Your task to perform on an android device: turn on the 24-hour format for clock Image 0: 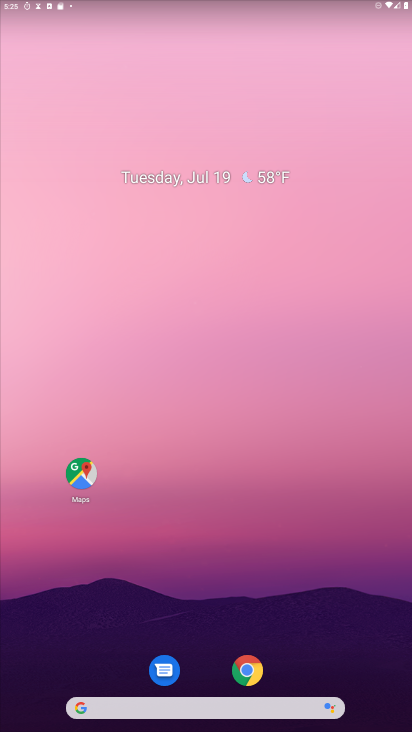
Step 0: drag from (299, 695) to (333, 70)
Your task to perform on an android device: turn on the 24-hour format for clock Image 1: 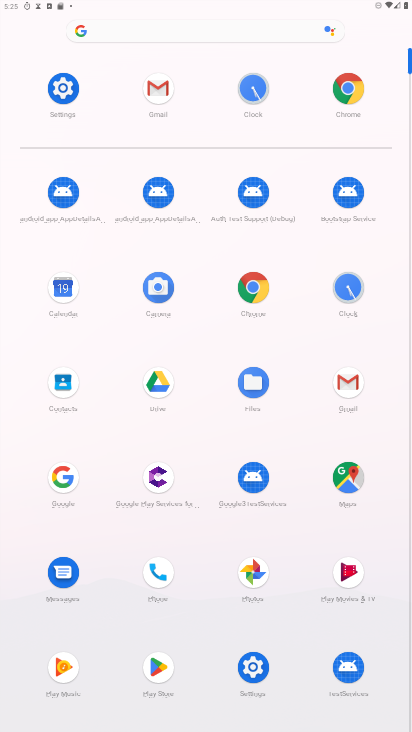
Step 1: click (352, 281)
Your task to perform on an android device: turn on the 24-hour format for clock Image 2: 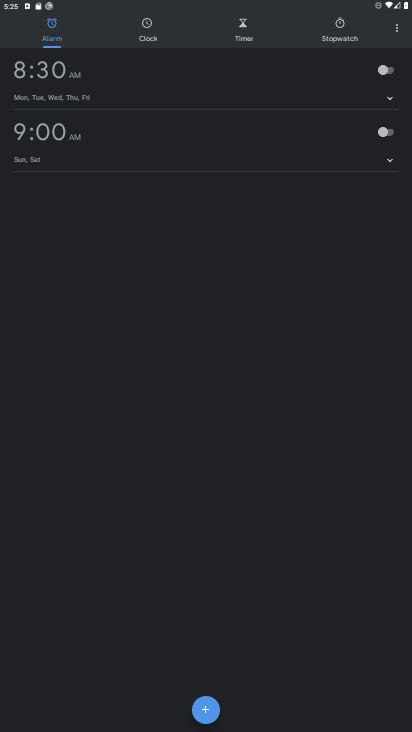
Step 2: click (395, 25)
Your task to perform on an android device: turn on the 24-hour format for clock Image 3: 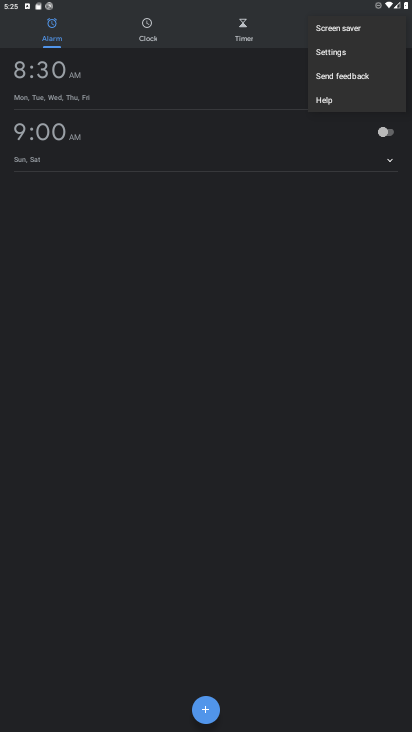
Step 3: click (347, 60)
Your task to perform on an android device: turn on the 24-hour format for clock Image 4: 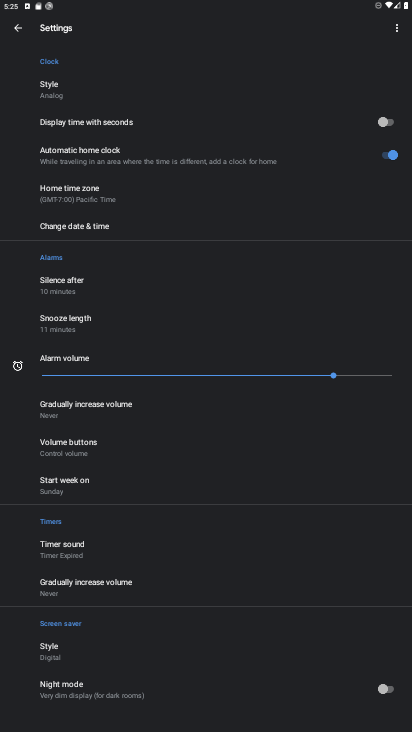
Step 4: click (132, 235)
Your task to perform on an android device: turn on the 24-hour format for clock Image 5: 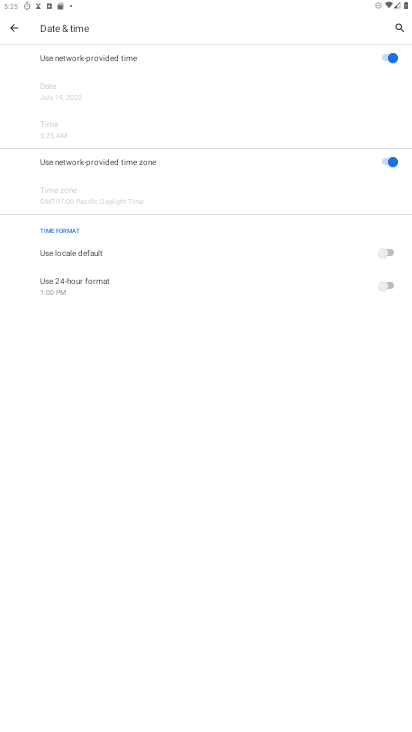
Step 5: click (385, 253)
Your task to perform on an android device: turn on the 24-hour format for clock Image 6: 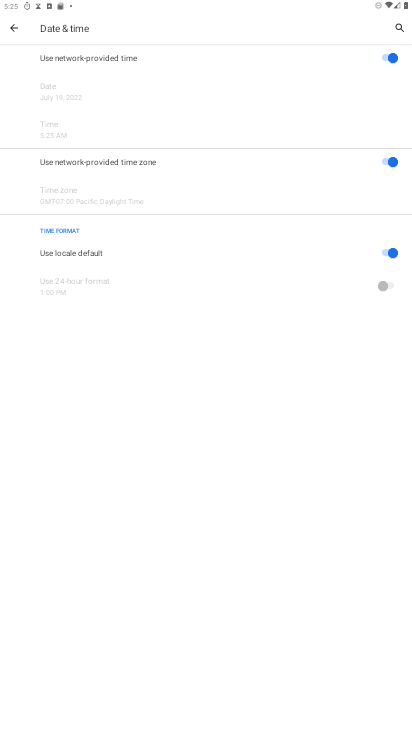
Step 6: click (385, 248)
Your task to perform on an android device: turn on the 24-hour format for clock Image 7: 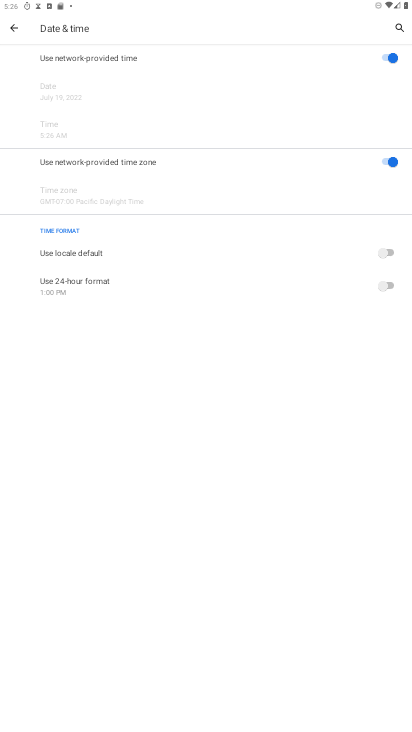
Step 7: click (389, 288)
Your task to perform on an android device: turn on the 24-hour format for clock Image 8: 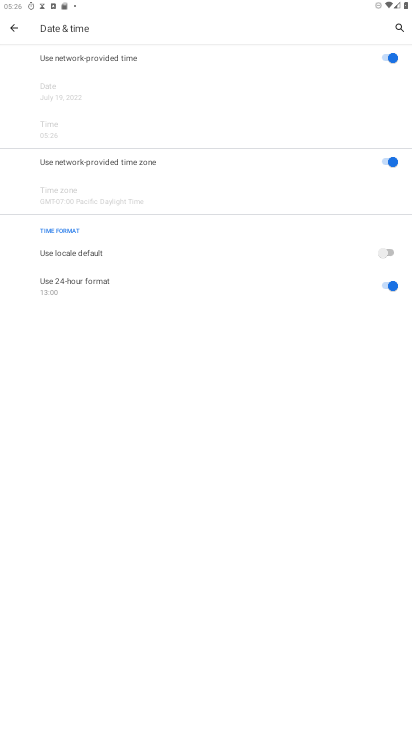
Step 8: press home button
Your task to perform on an android device: turn on the 24-hour format for clock Image 9: 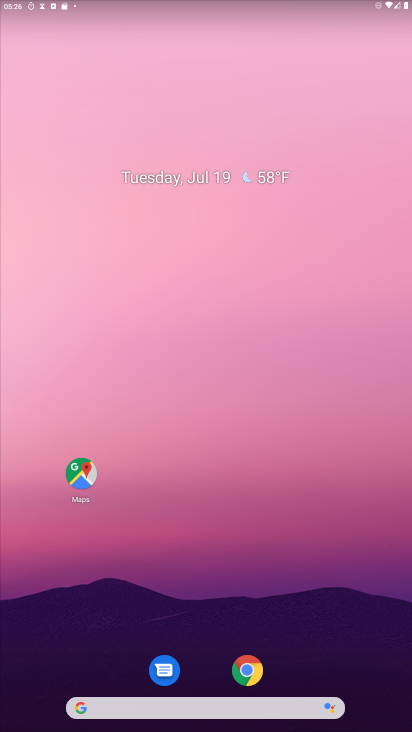
Step 9: drag from (274, 708) to (311, 26)
Your task to perform on an android device: turn on the 24-hour format for clock Image 10: 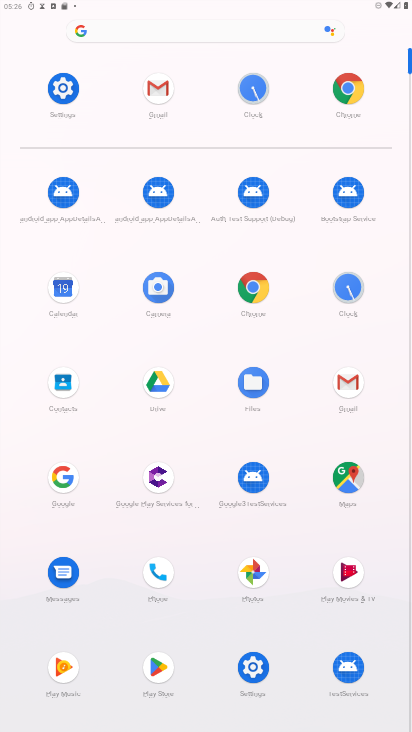
Step 10: click (347, 289)
Your task to perform on an android device: turn on the 24-hour format for clock Image 11: 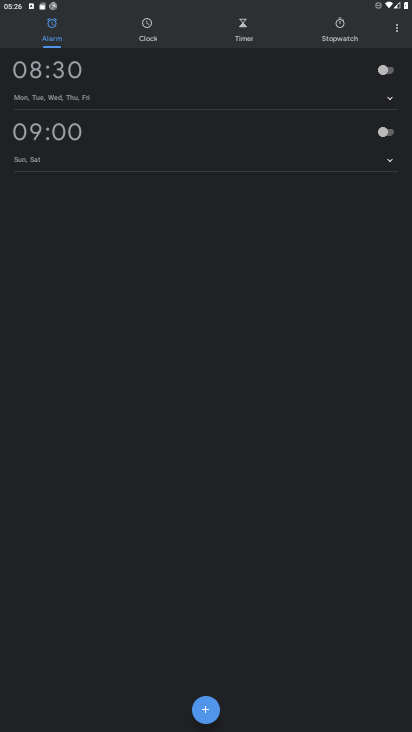
Step 11: click (395, 24)
Your task to perform on an android device: turn on the 24-hour format for clock Image 12: 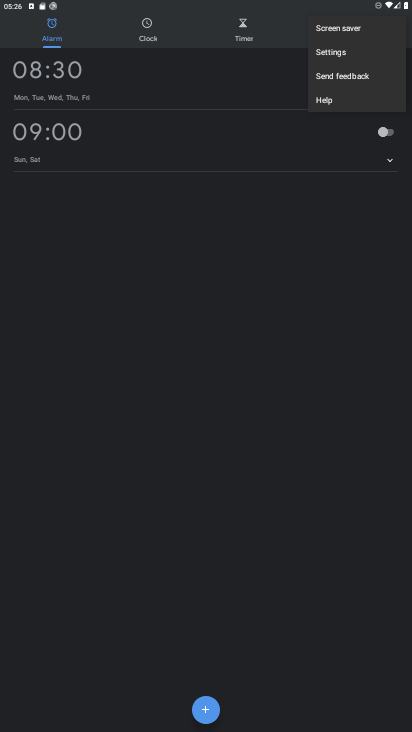
Step 12: click (360, 49)
Your task to perform on an android device: turn on the 24-hour format for clock Image 13: 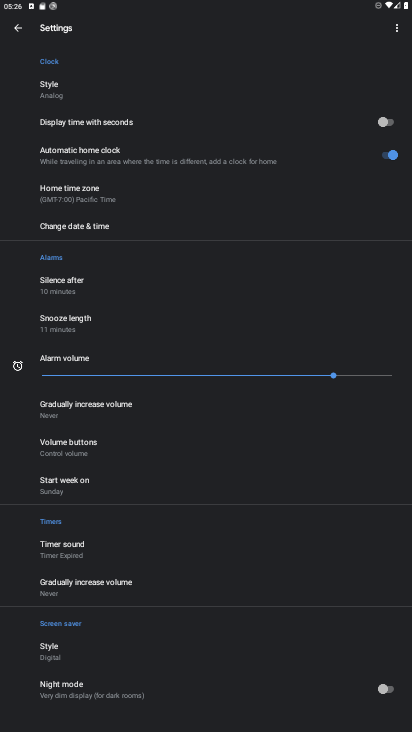
Step 13: click (114, 224)
Your task to perform on an android device: turn on the 24-hour format for clock Image 14: 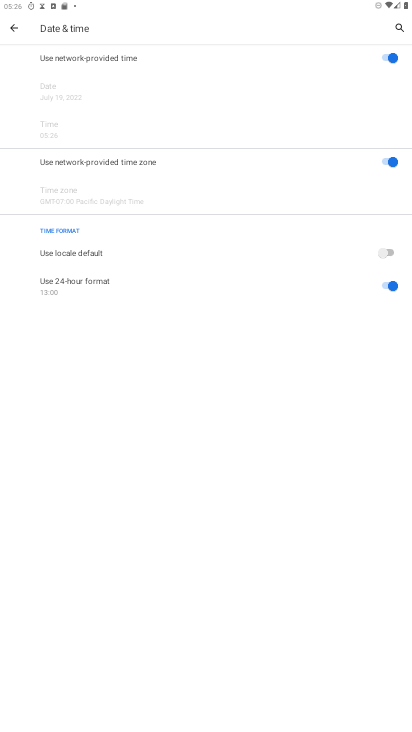
Step 14: task complete